Your task to perform on an android device: open a bookmark in the chrome app Image 0: 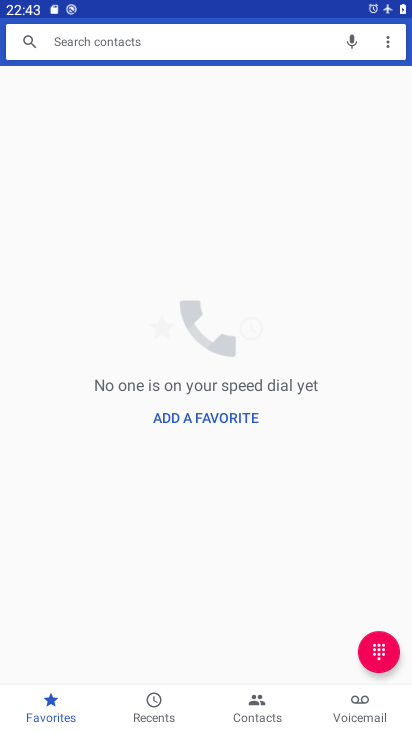
Step 0: press home button
Your task to perform on an android device: open a bookmark in the chrome app Image 1: 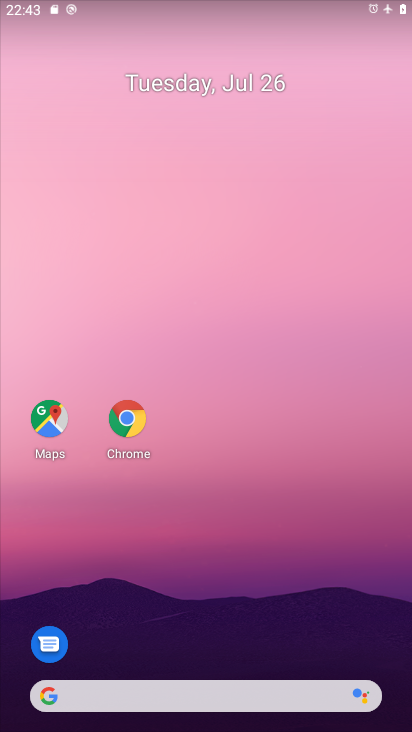
Step 1: click (127, 426)
Your task to perform on an android device: open a bookmark in the chrome app Image 2: 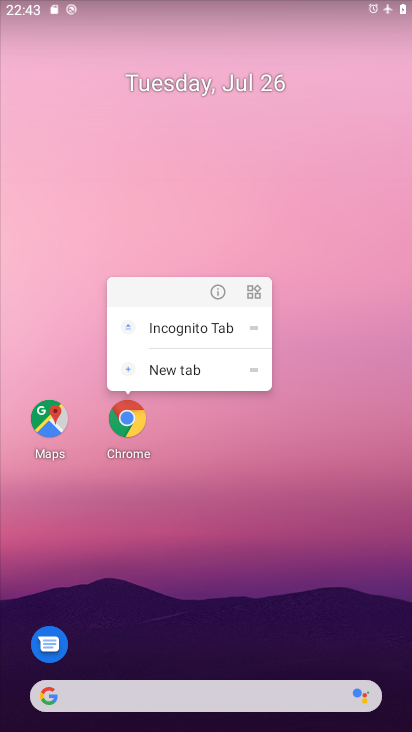
Step 2: click (134, 435)
Your task to perform on an android device: open a bookmark in the chrome app Image 3: 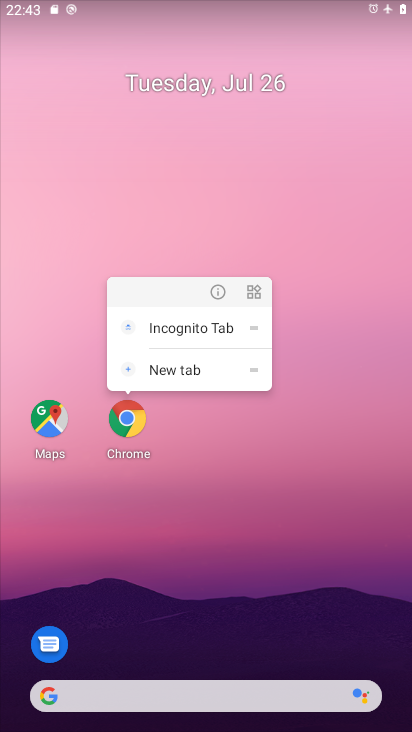
Step 3: click (134, 435)
Your task to perform on an android device: open a bookmark in the chrome app Image 4: 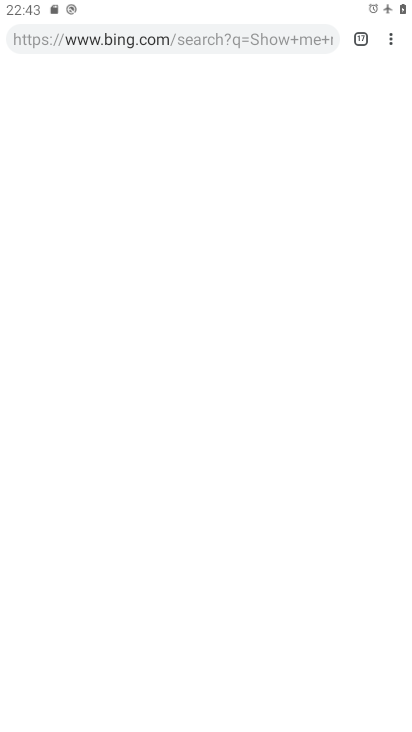
Step 4: click (399, 41)
Your task to perform on an android device: open a bookmark in the chrome app Image 5: 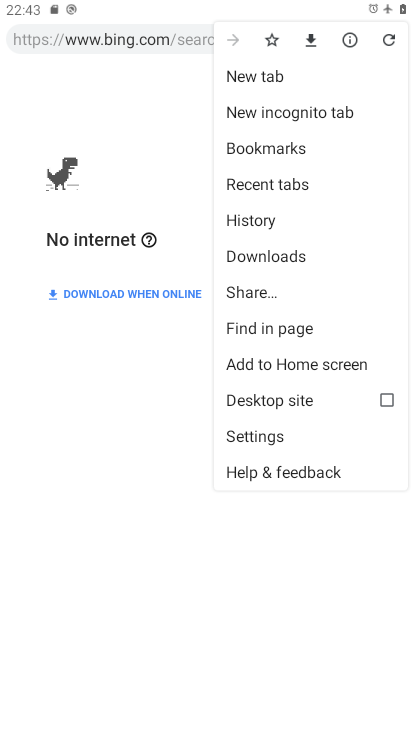
Step 5: click (313, 136)
Your task to perform on an android device: open a bookmark in the chrome app Image 6: 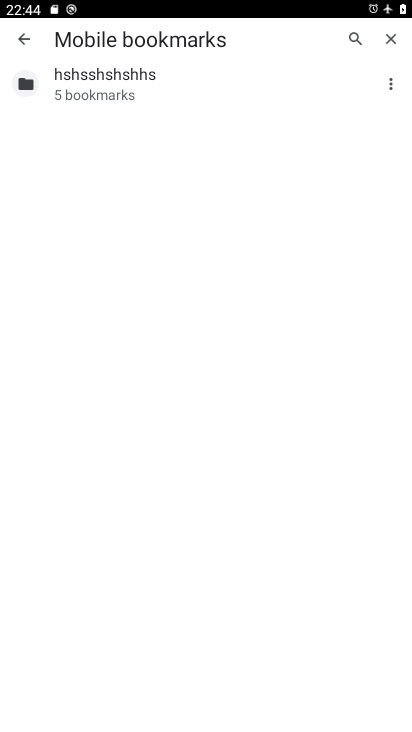
Step 6: task complete